Your task to perform on an android device: What's on my calendar today? Image 0: 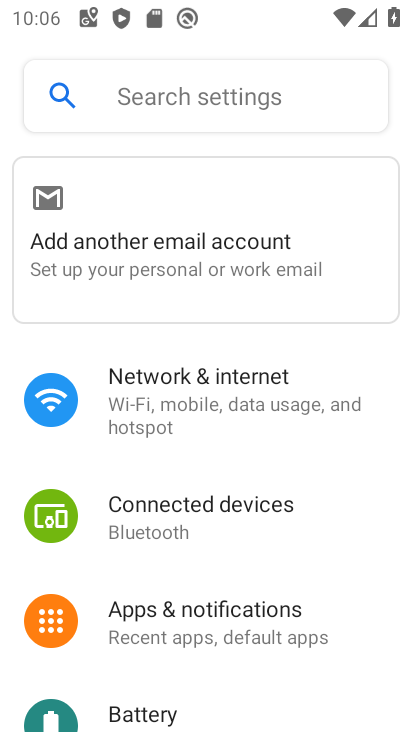
Step 0: press home button
Your task to perform on an android device: What's on my calendar today? Image 1: 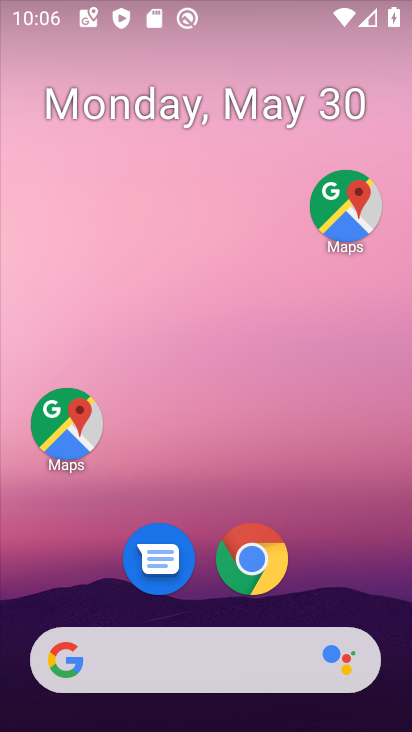
Step 1: drag from (340, 562) to (221, 120)
Your task to perform on an android device: What's on my calendar today? Image 2: 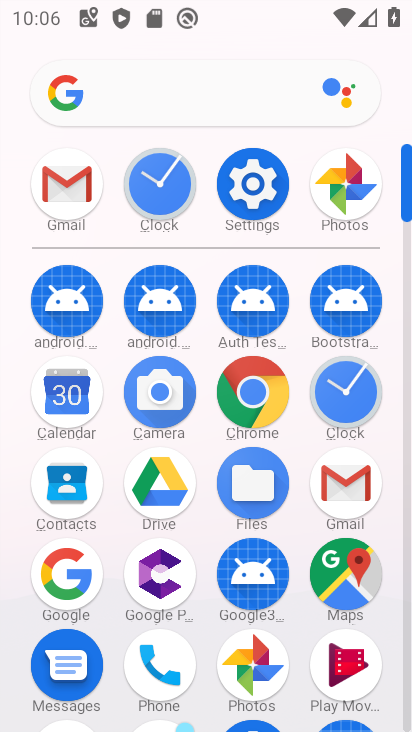
Step 2: click (68, 389)
Your task to perform on an android device: What's on my calendar today? Image 3: 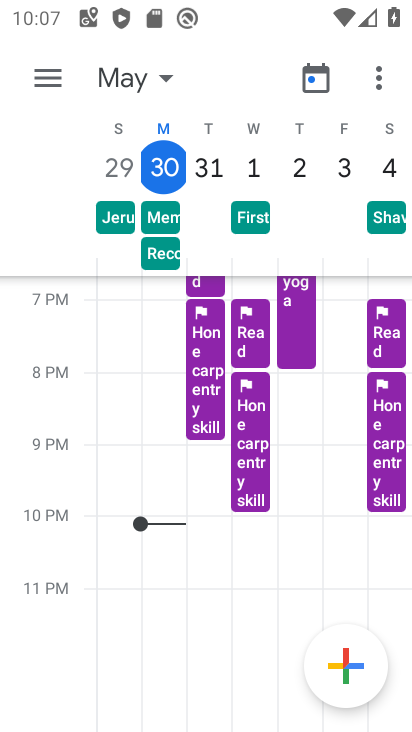
Step 3: task complete